Your task to perform on an android device: empty trash in google photos Image 0: 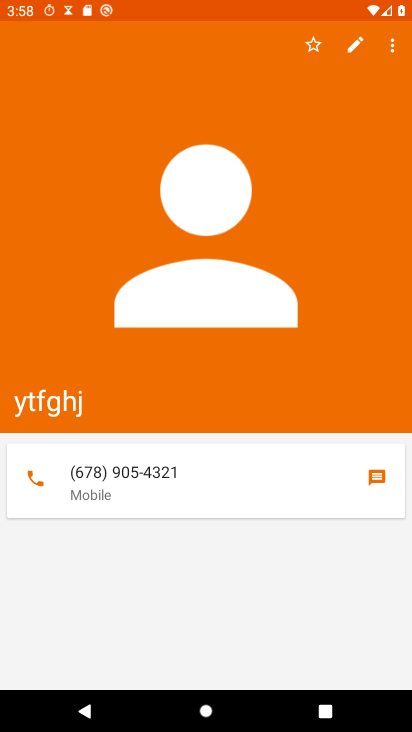
Step 0: press home button
Your task to perform on an android device: empty trash in google photos Image 1: 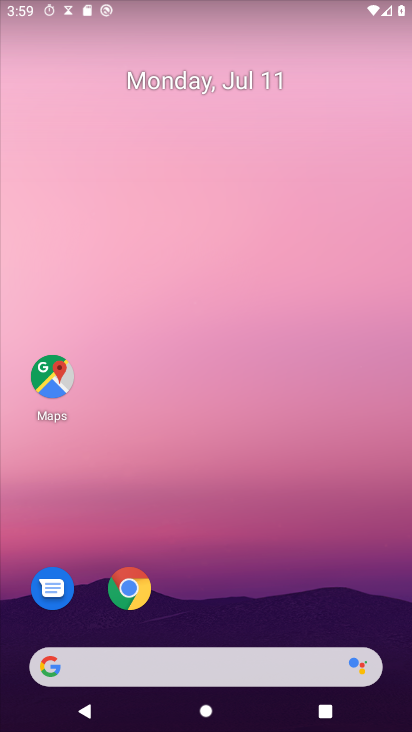
Step 1: drag from (257, 609) to (160, 17)
Your task to perform on an android device: empty trash in google photos Image 2: 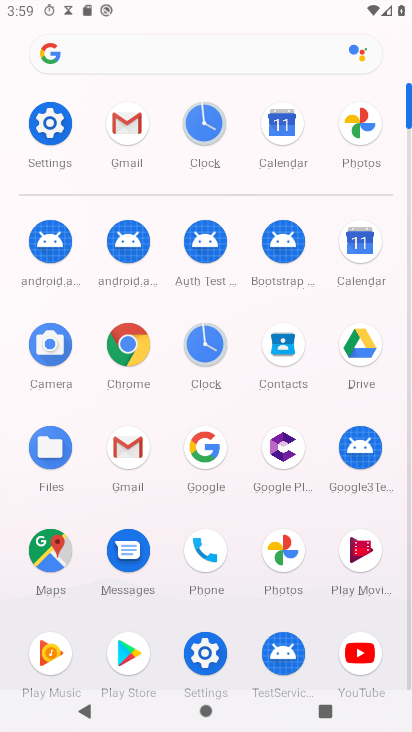
Step 2: click (289, 556)
Your task to perform on an android device: empty trash in google photos Image 3: 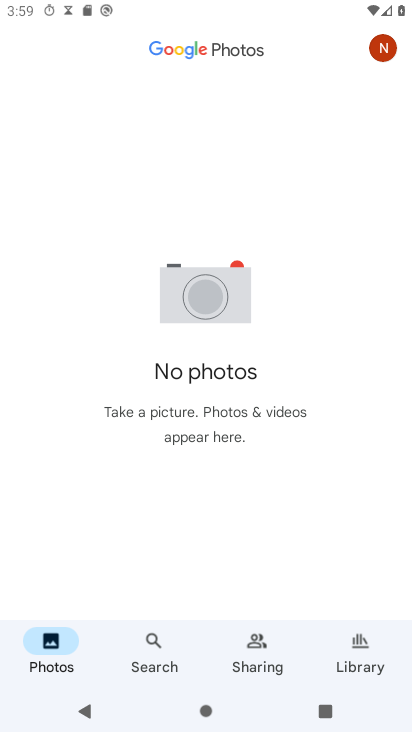
Step 3: click (366, 649)
Your task to perform on an android device: empty trash in google photos Image 4: 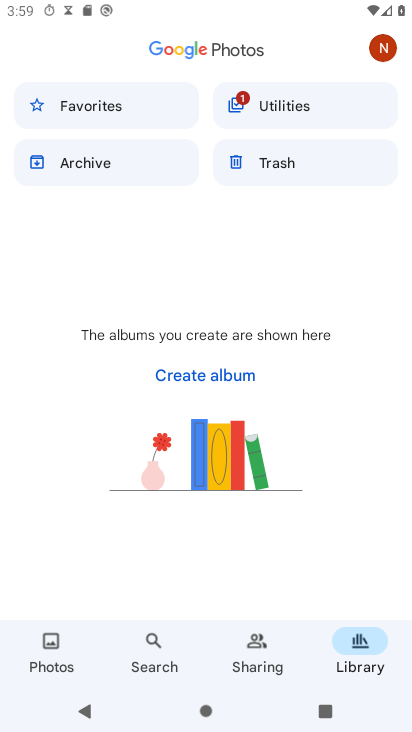
Step 4: click (241, 158)
Your task to perform on an android device: empty trash in google photos Image 5: 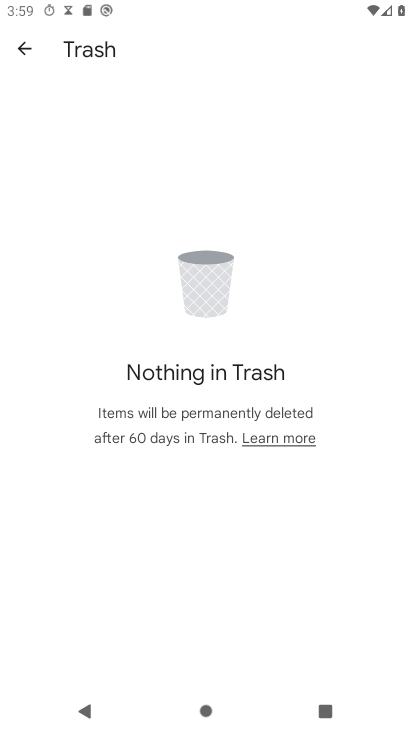
Step 5: task complete